Your task to perform on an android device: Go to calendar. Show me events next week Image 0: 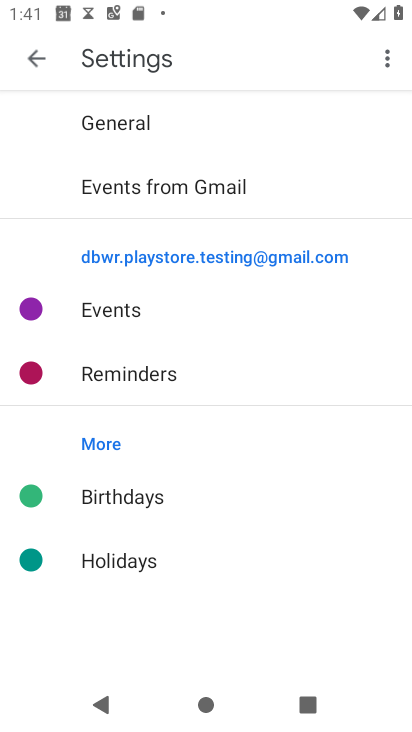
Step 0: press home button
Your task to perform on an android device: Go to calendar. Show me events next week Image 1: 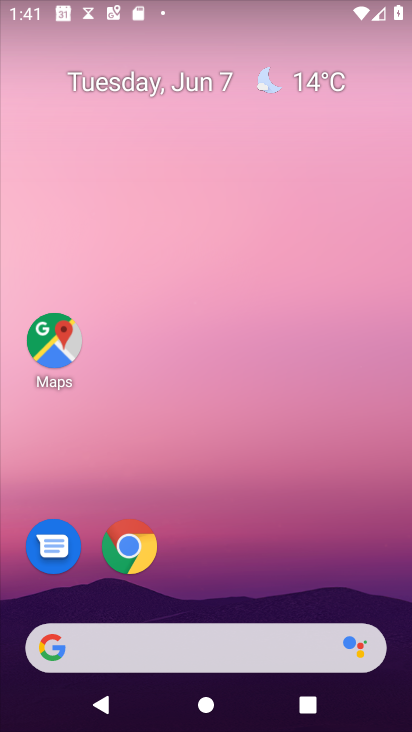
Step 1: press home button
Your task to perform on an android device: Go to calendar. Show me events next week Image 2: 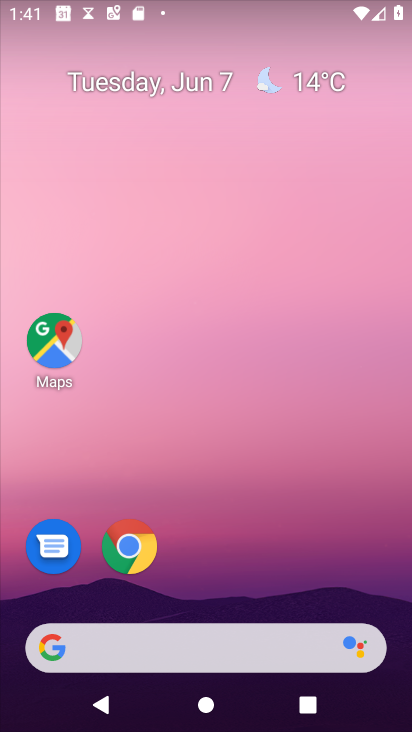
Step 2: drag from (248, 537) to (274, 57)
Your task to perform on an android device: Go to calendar. Show me events next week Image 3: 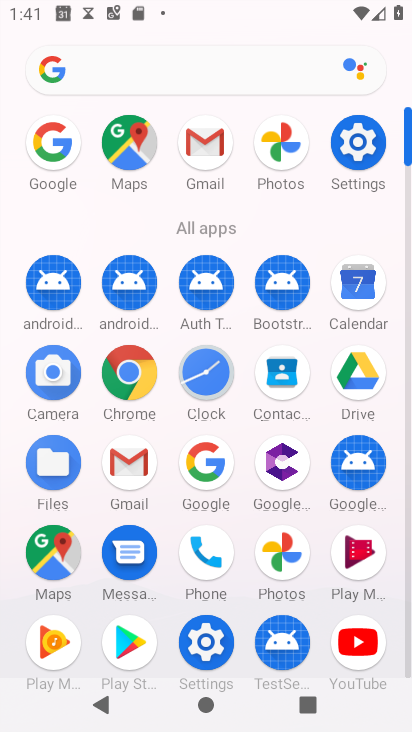
Step 3: click (361, 293)
Your task to perform on an android device: Go to calendar. Show me events next week Image 4: 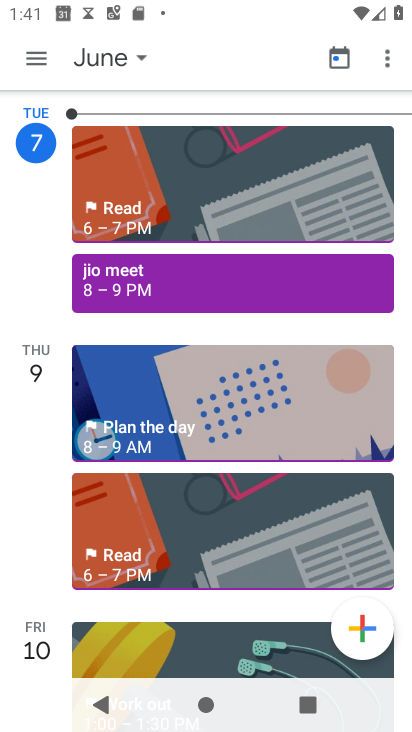
Step 4: drag from (31, 585) to (111, 2)
Your task to perform on an android device: Go to calendar. Show me events next week Image 5: 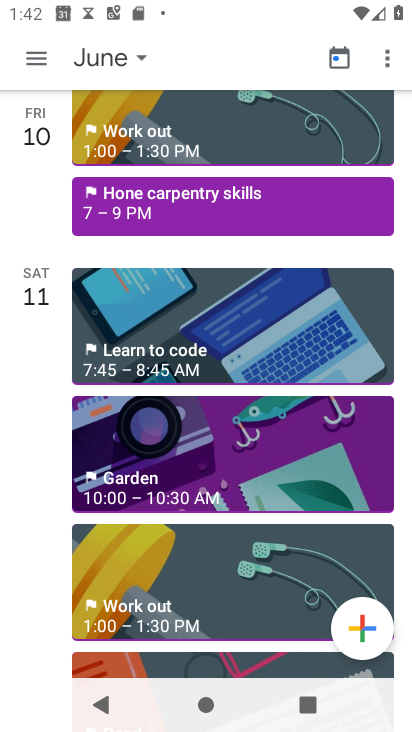
Step 5: drag from (39, 600) to (72, 49)
Your task to perform on an android device: Go to calendar. Show me events next week Image 6: 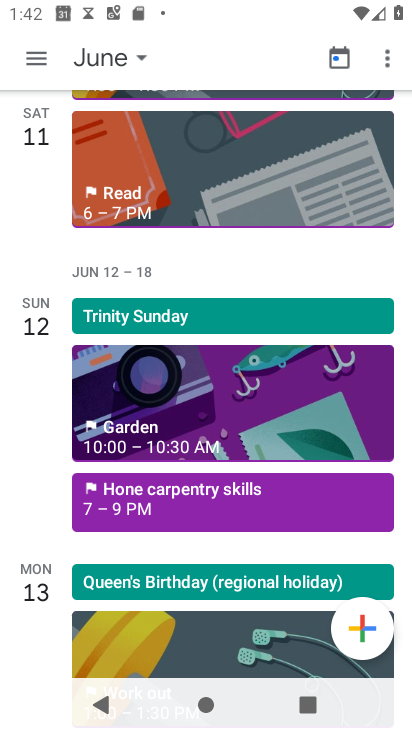
Step 6: drag from (28, 628) to (54, 140)
Your task to perform on an android device: Go to calendar. Show me events next week Image 7: 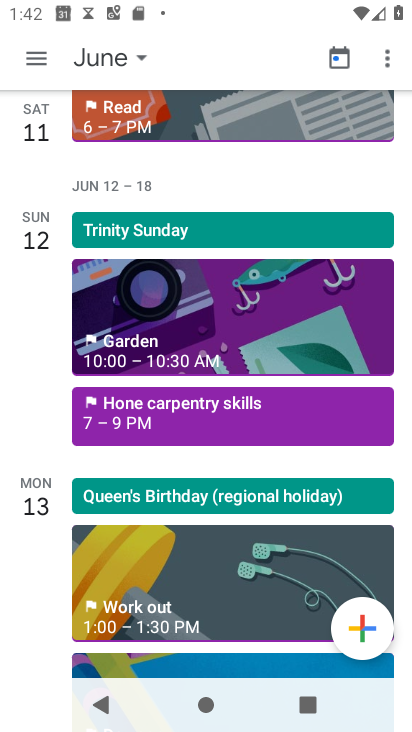
Step 7: drag from (51, 666) to (76, 207)
Your task to perform on an android device: Go to calendar. Show me events next week Image 8: 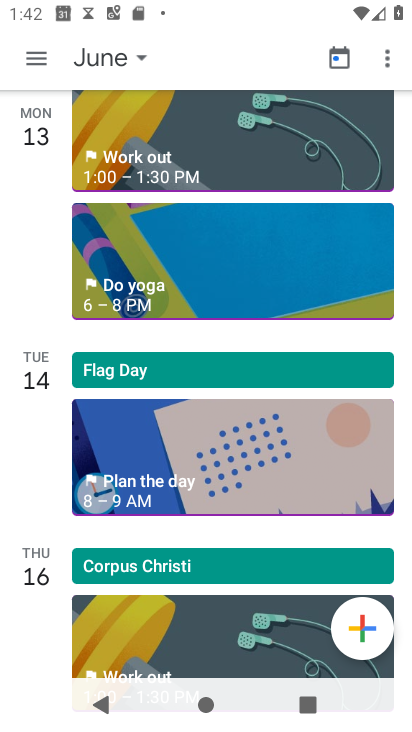
Step 8: press home button
Your task to perform on an android device: Go to calendar. Show me events next week Image 9: 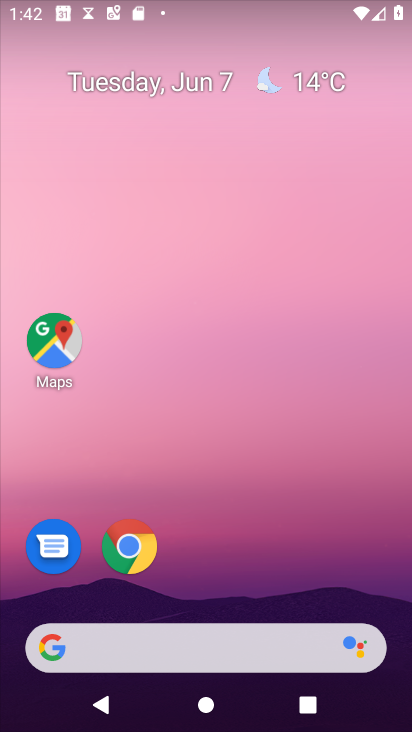
Step 9: drag from (295, 572) to (327, 52)
Your task to perform on an android device: Go to calendar. Show me events next week Image 10: 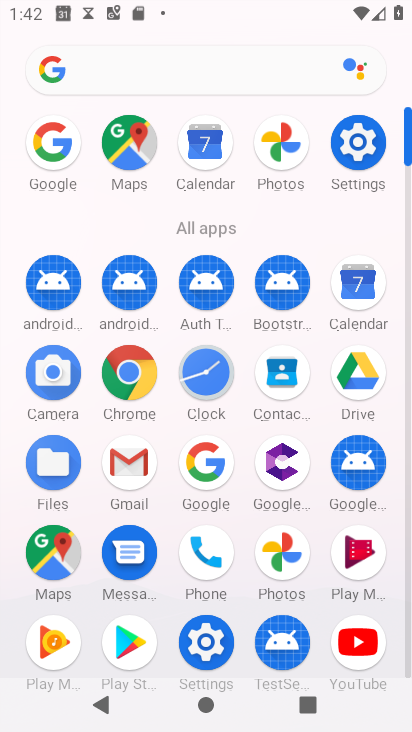
Step 10: click (361, 280)
Your task to perform on an android device: Go to calendar. Show me events next week Image 11: 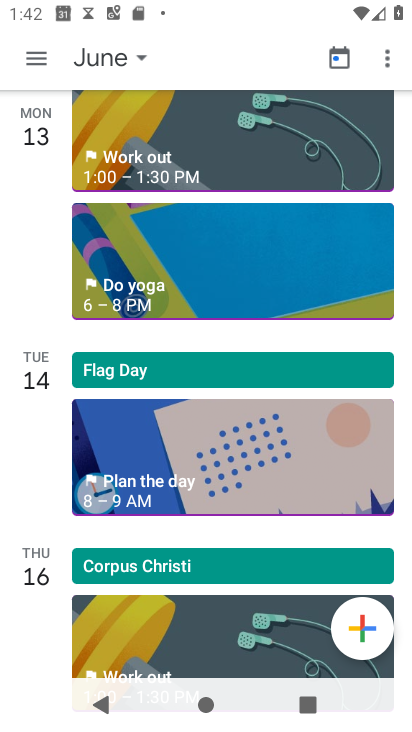
Step 11: task complete